Your task to perform on an android device: install app "Adobe Express: Graphic Design" Image 0: 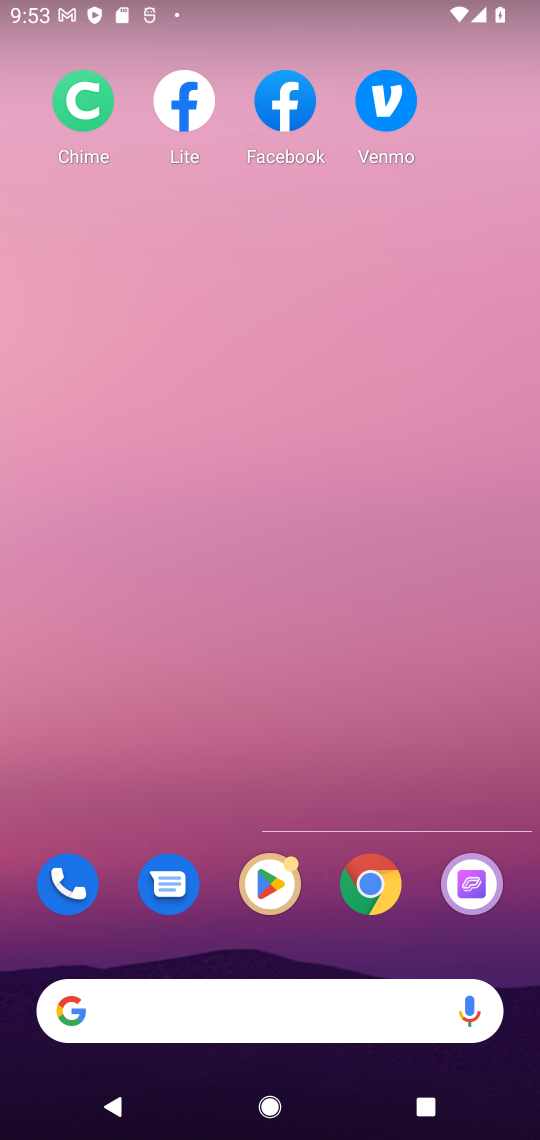
Step 0: click (254, 905)
Your task to perform on an android device: install app "Adobe Express: Graphic Design" Image 1: 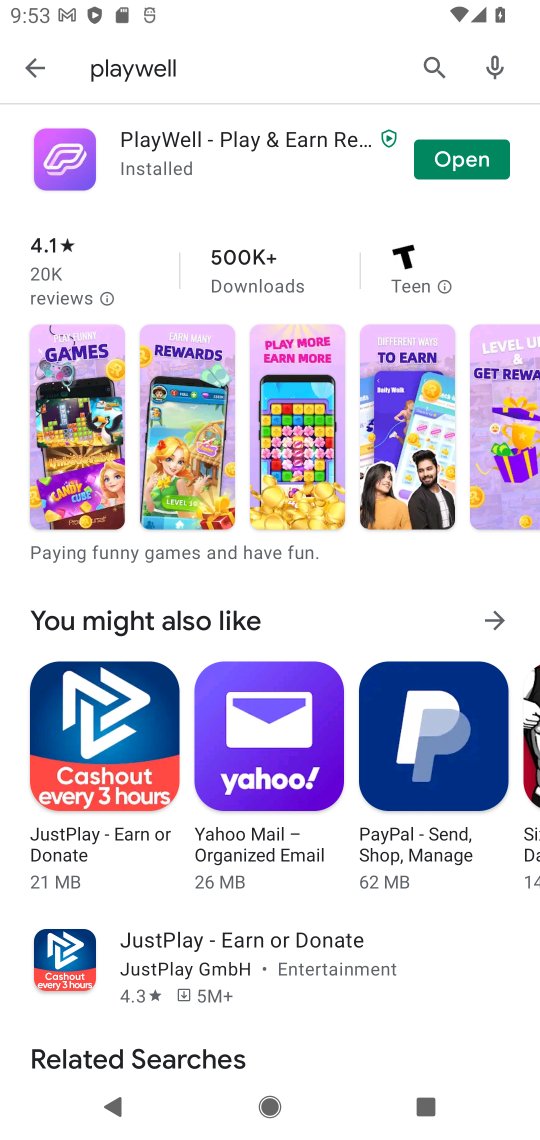
Step 1: click (449, 86)
Your task to perform on an android device: install app "Adobe Express: Graphic Design" Image 2: 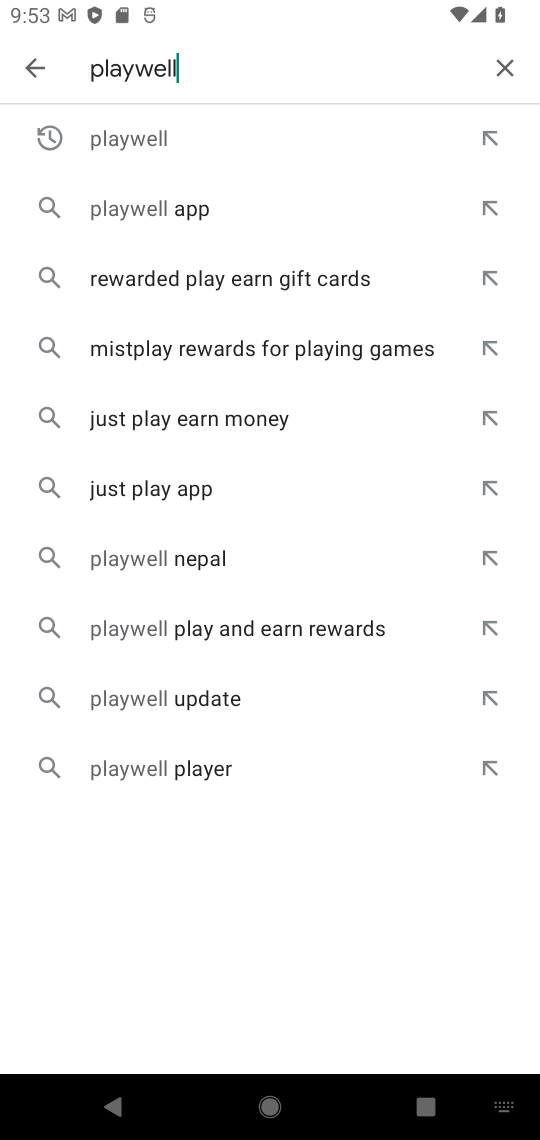
Step 2: click (509, 77)
Your task to perform on an android device: install app "Adobe Express: Graphic Design" Image 3: 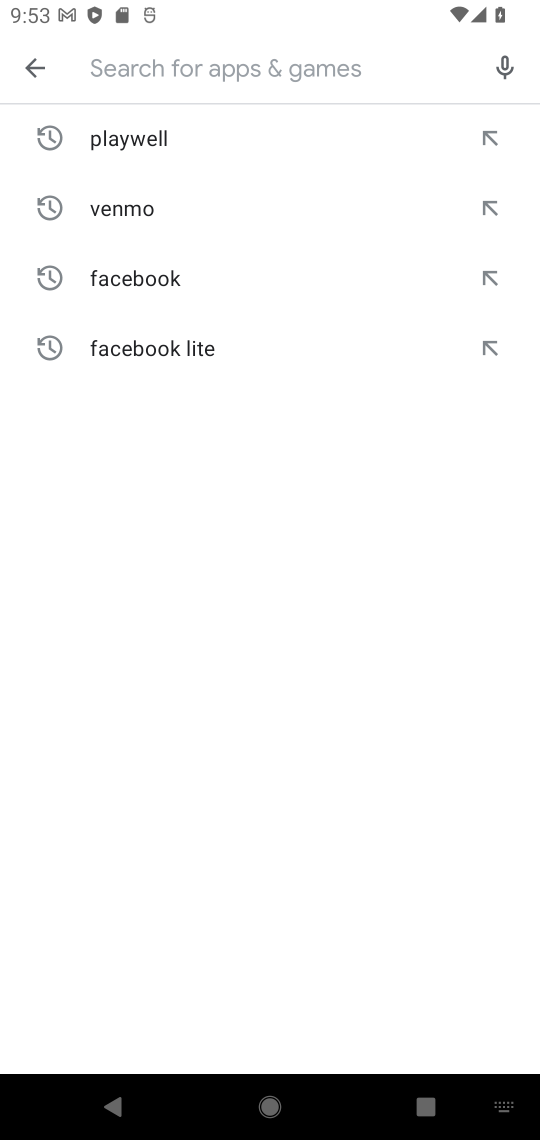
Step 3: type "adobe express"
Your task to perform on an android device: install app "Adobe Express: Graphic Design" Image 4: 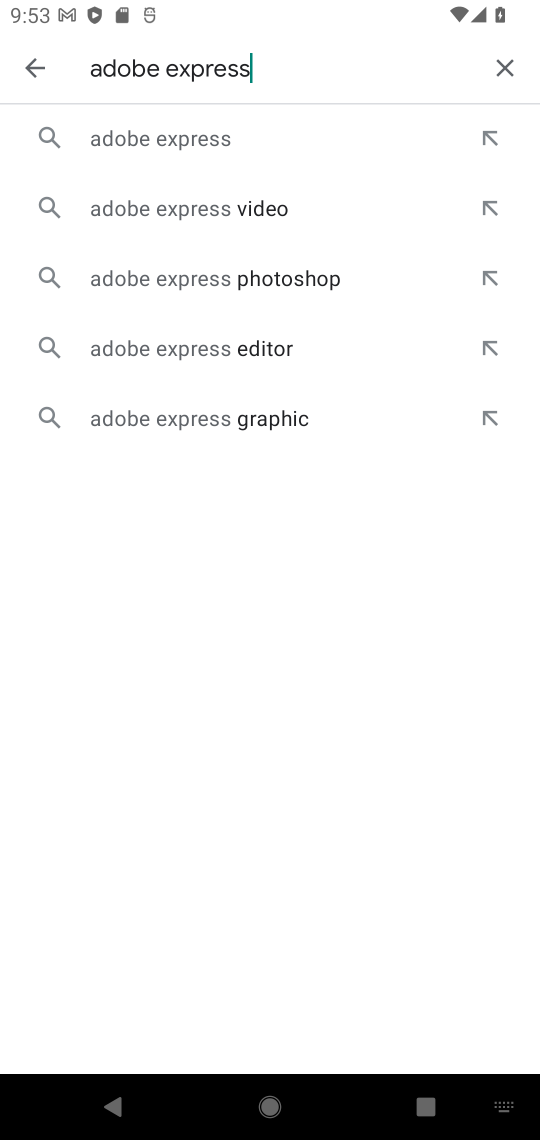
Step 4: click (280, 137)
Your task to perform on an android device: install app "Adobe Express: Graphic Design" Image 5: 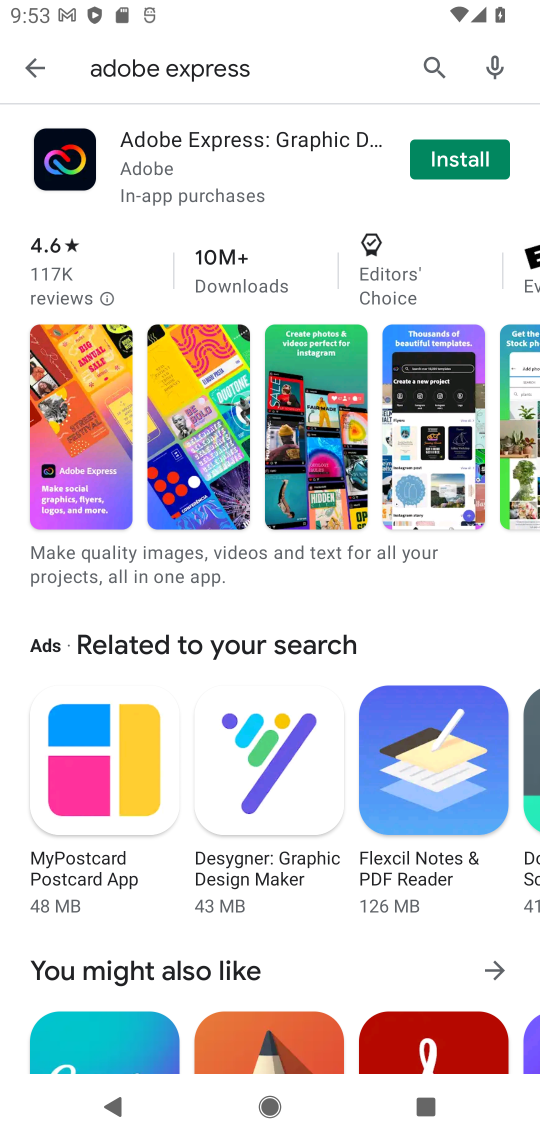
Step 5: click (430, 155)
Your task to perform on an android device: install app "Adobe Express: Graphic Design" Image 6: 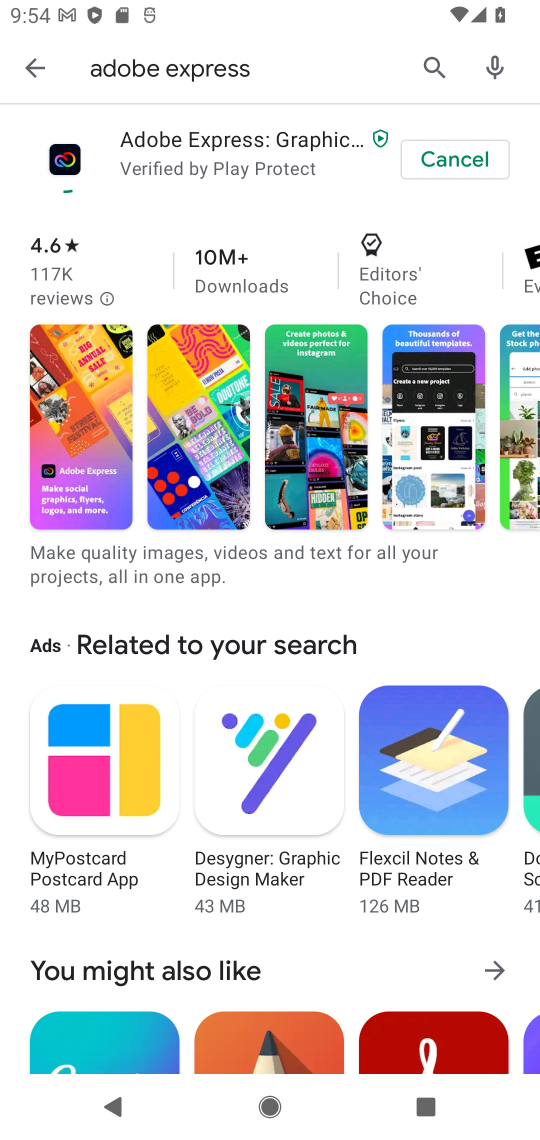
Step 6: task complete